Your task to perform on an android device: visit the assistant section in the google photos Image 0: 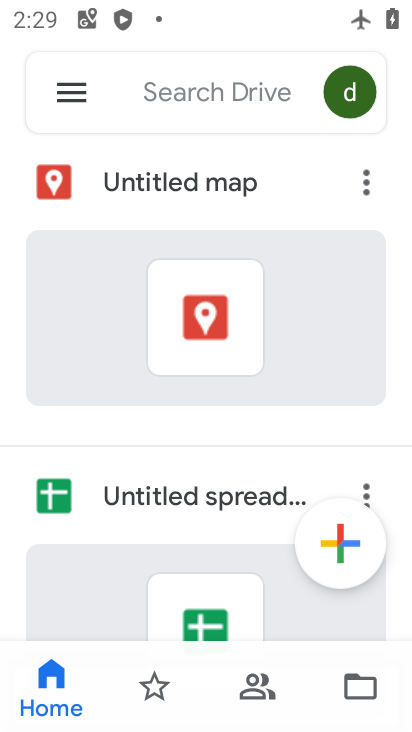
Step 0: press home button
Your task to perform on an android device: visit the assistant section in the google photos Image 1: 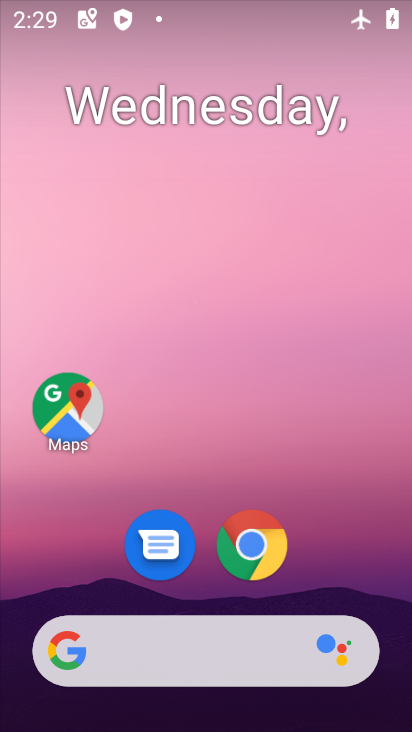
Step 1: drag from (317, 542) to (295, 78)
Your task to perform on an android device: visit the assistant section in the google photos Image 2: 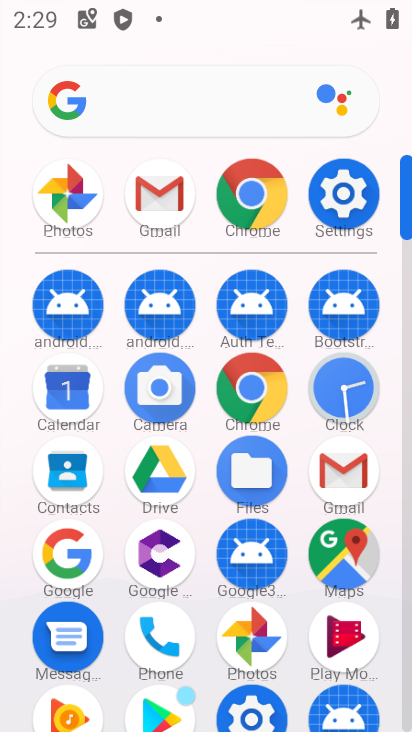
Step 2: click (60, 201)
Your task to perform on an android device: visit the assistant section in the google photos Image 3: 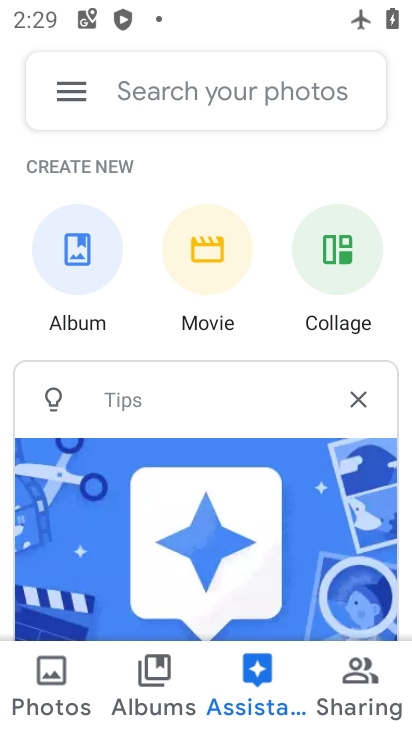
Step 3: click (253, 695)
Your task to perform on an android device: visit the assistant section in the google photos Image 4: 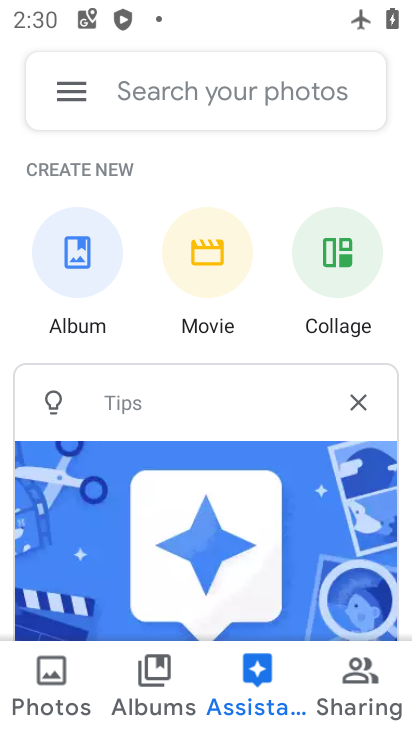
Step 4: task complete